Your task to perform on an android device: Play the last video I watched on Youtube Image 0: 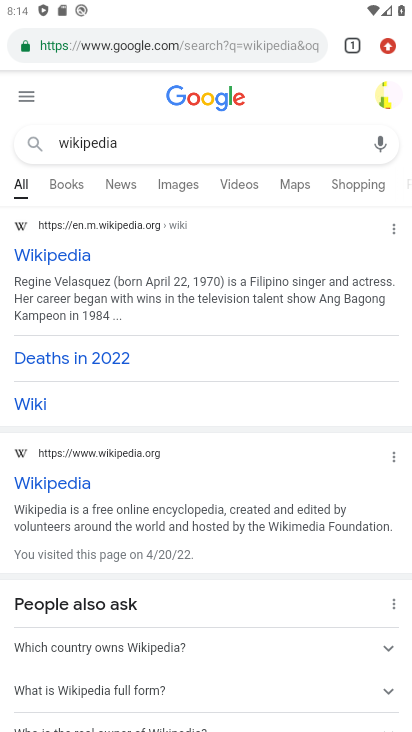
Step 0: press home button
Your task to perform on an android device: Play the last video I watched on Youtube Image 1: 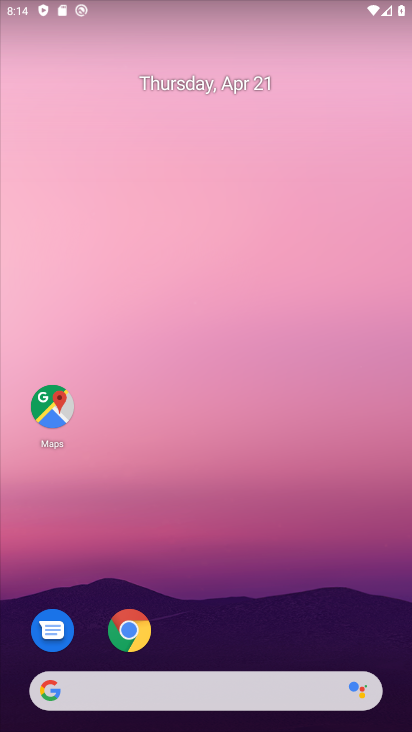
Step 1: drag from (203, 637) to (309, 15)
Your task to perform on an android device: Play the last video I watched on Youtube Image 2: 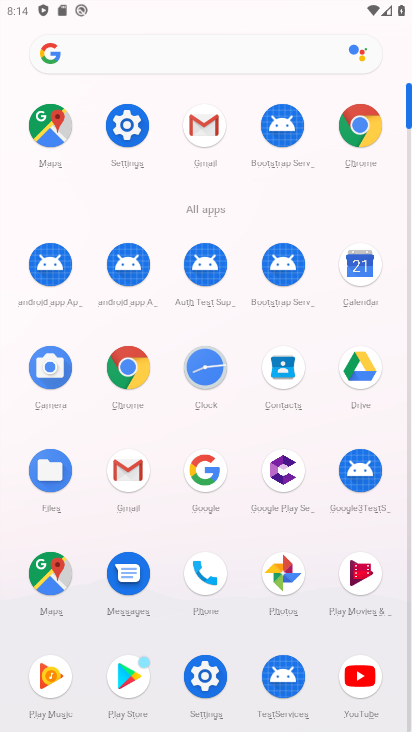
Step 2: click (359, 680)
Your task to perform on an android device: Play the last video I watched on Youtube Image 3: 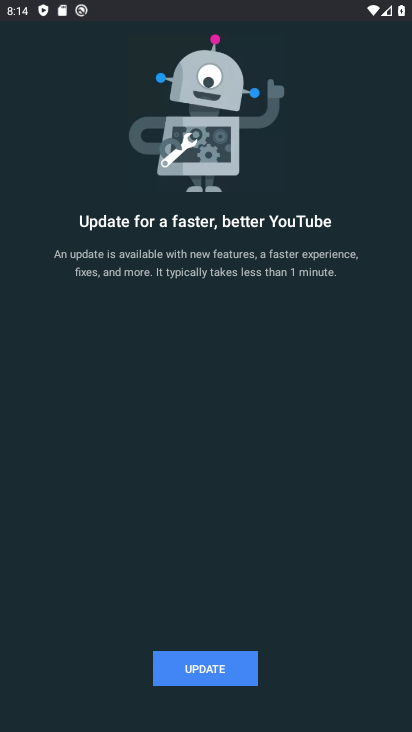
Step 3: click (206, 657)
Your task to perform on an android device: Play the last video I watched on Youtube Image 4: 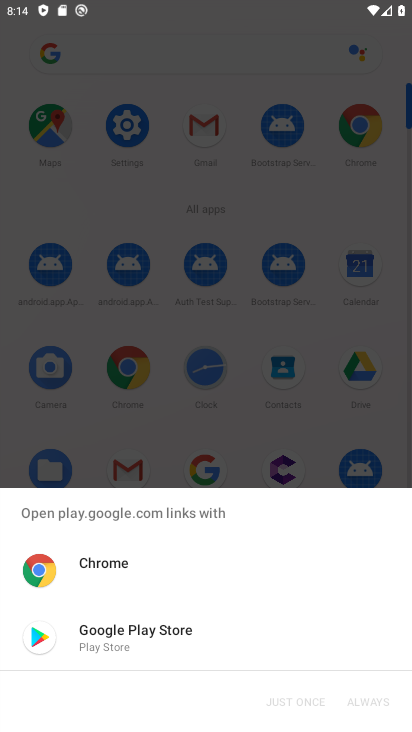
Step 4: click (117, 612)
Your task to perform on an android device: Play the last video I watched on Youtube Image 5: 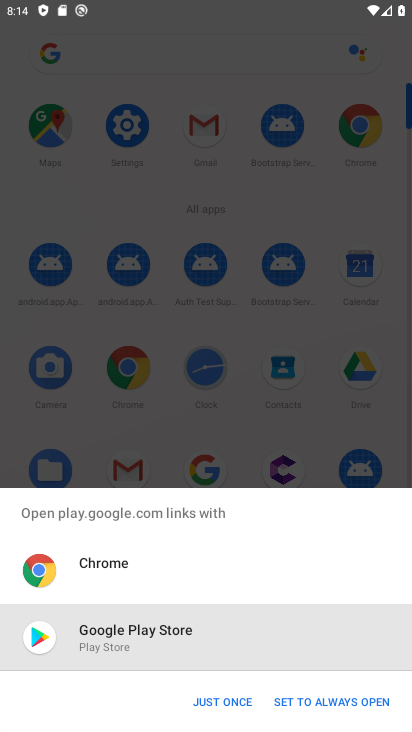
Step 5: click (227, 696)
Your task to perform on an android device: Play the last video I watched on Youtube Image 6: 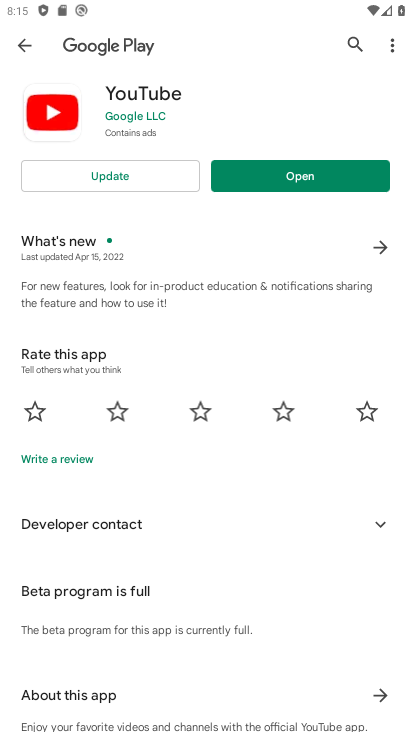
Step 6: click (157, 184)
Your task to perform on an android device: Play the last video I watched on Youtube Image 7: 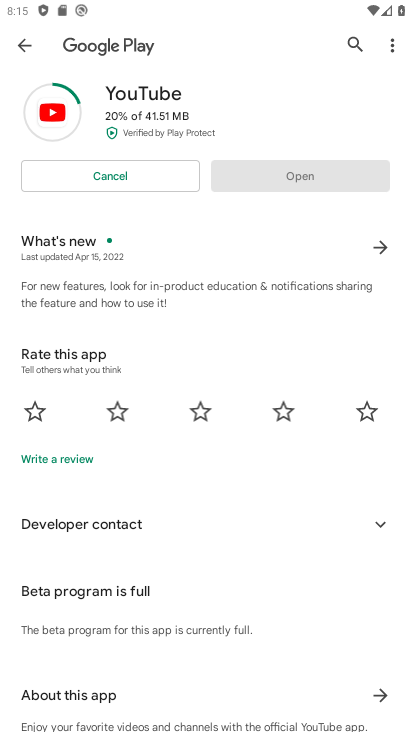
Step 7: click (212, 344)
Your task to perform on an android device: Play the last video I watched on Youtube Image 8: 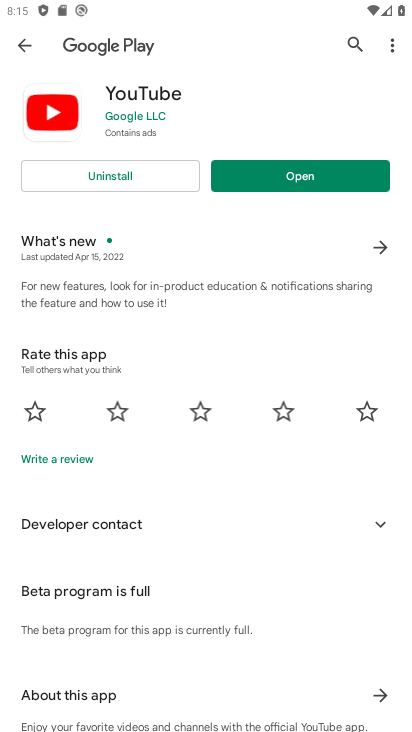
Step 8: click (290, 186)
Your task to perform on an android device: Play the last video I watched on Youtube Image 9: 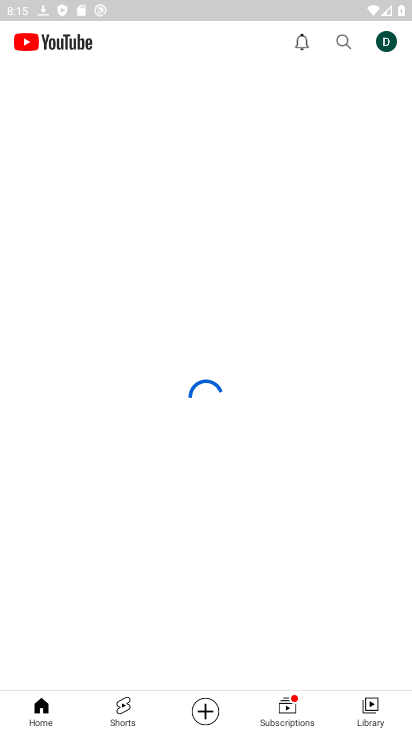
Step 9: click (363, 717)
Your task to perform on an android device: Play the last video I watched on Youtube Image 10: 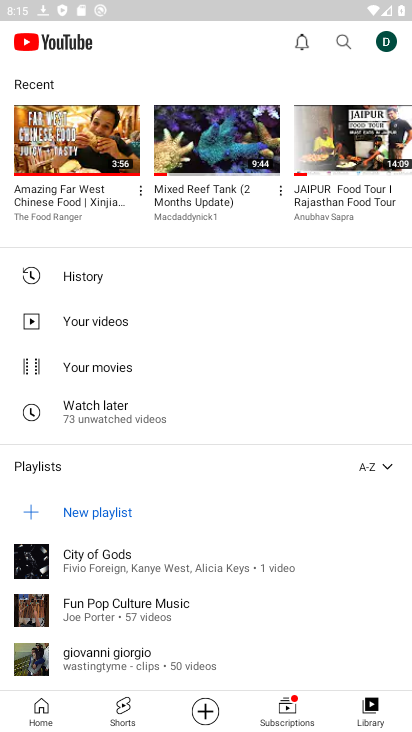
Step 10: click (71, 167)
Your task to perform on an android device: Play the last video I watched on Youtube Image 11: 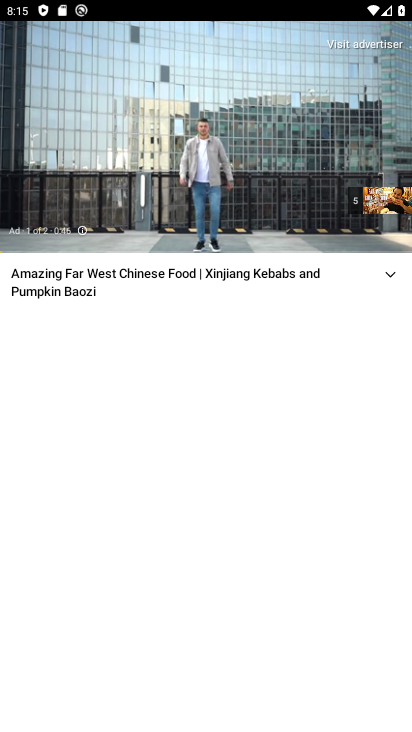
Step 11: task complete